Your task to perform on an android device: Go to ESPN.com Image 0: 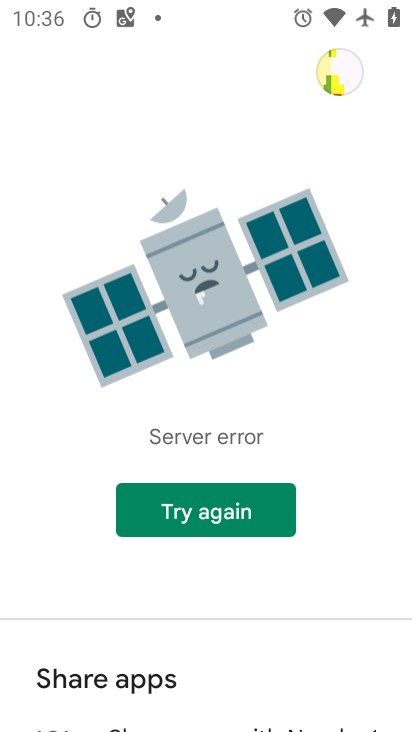
Step 0: press home button
Your task to perform on an android device: Go to ESPN.com Image 1: 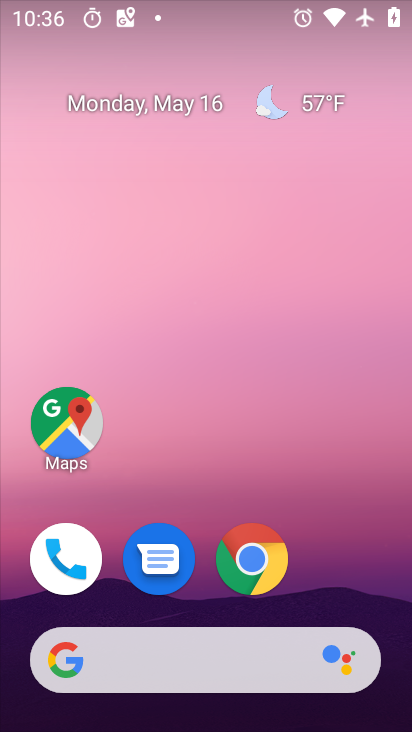
Step 1: click (254, 568)
Your task to perform on an android device: Go to ESPN.com Image 2: 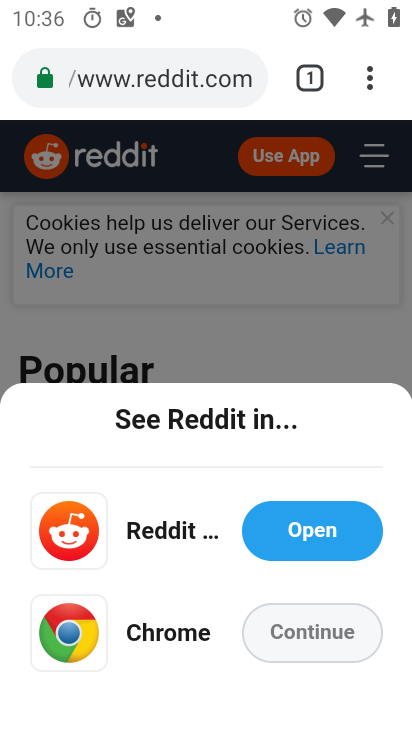
Step 2: click (171, 74)
Your task to perform on an android device: Go to ESPN.com Image 3: 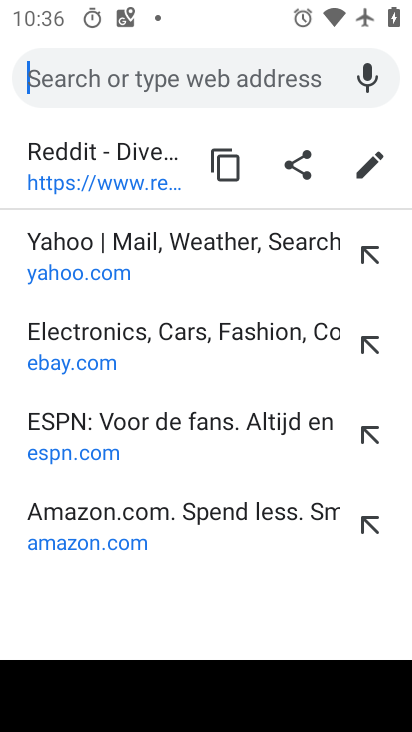
Step 3: type "espn.com"
Your task to perform on an android device: Go to ESPN.com Image 4: 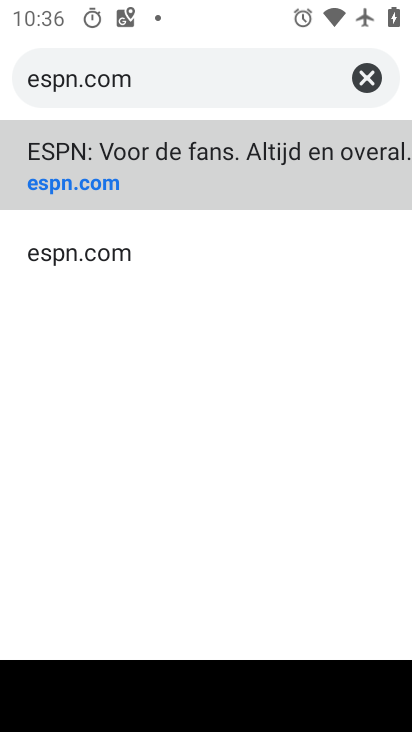
Step 4: click (87, 195)
Your task to perform on an android device: Go to ESPN.com Image 5: 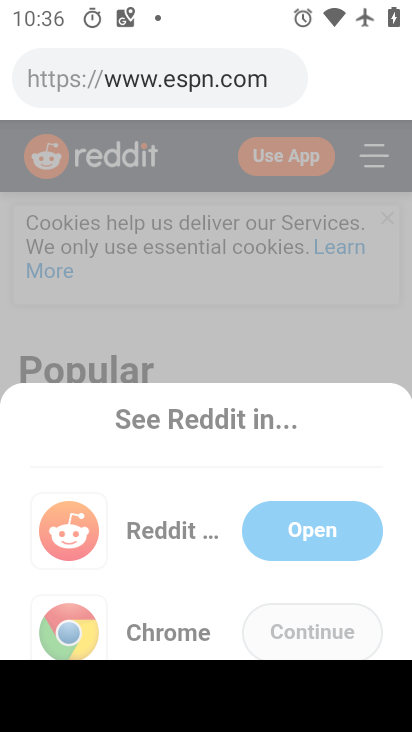
Step 5: click (90, 179)
Your task to perform on an android device: Go to ESPN.com Image 6: 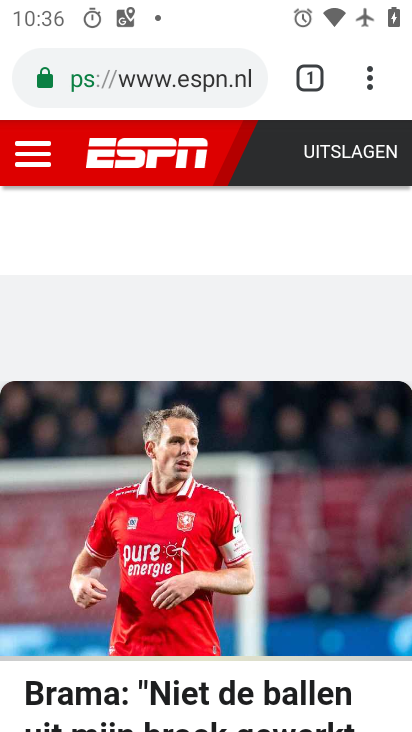
Step 6: task complete